Your task to perform on an android device: Go to Wikipedia Image 0: 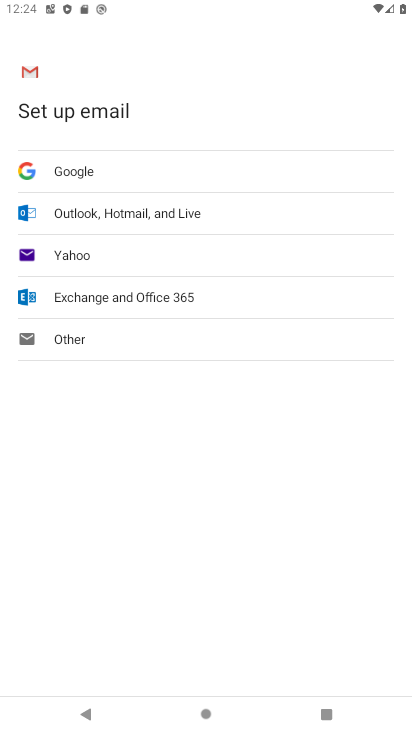
Step 0: press home button
Your task to perform on an android device: Go to Wikipedia Image 1: 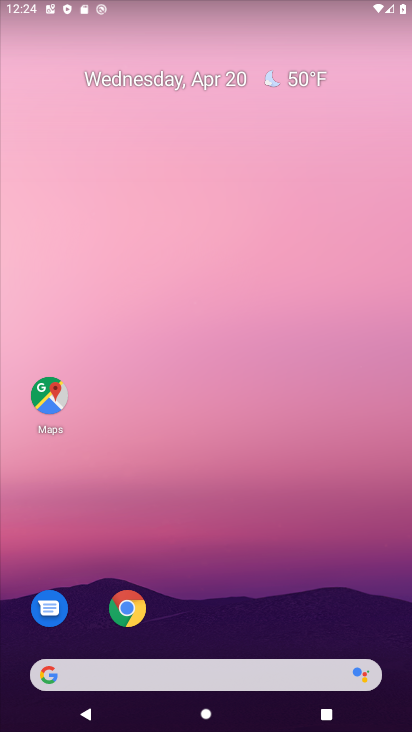
Step 1: click (160, 674)
Your task to perform on an android device: Go to Wikipedia Image 2: 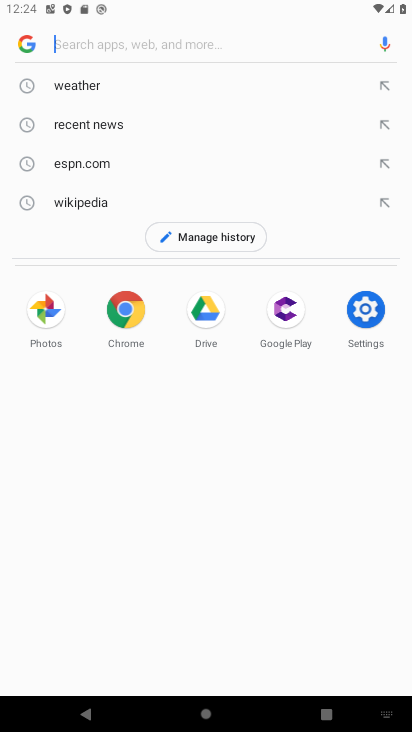
Step 2: click (122, 42)
Your task to perform on an android device: Go to Wikipedia Image 3: 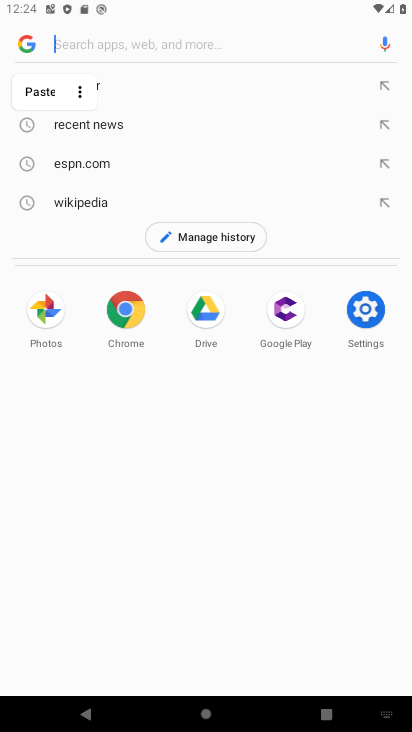
Step 3: click (70, 205)
Your task to perform on an android device: Go to Wikipedia Image 4: 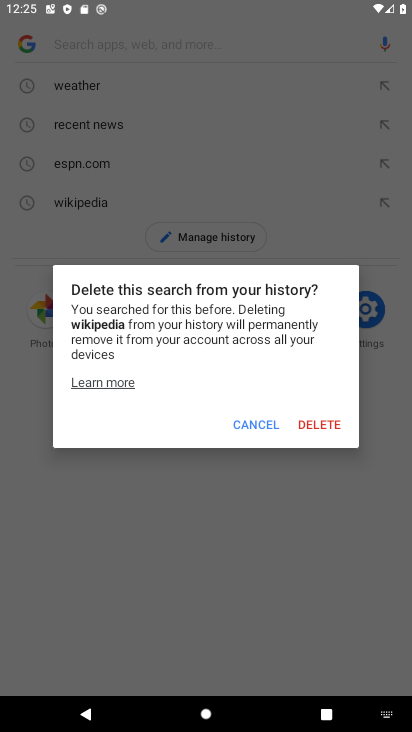
Step 4: click (249, 426)
Your task to perform on an android device: Go to Wikipedia Image 5: 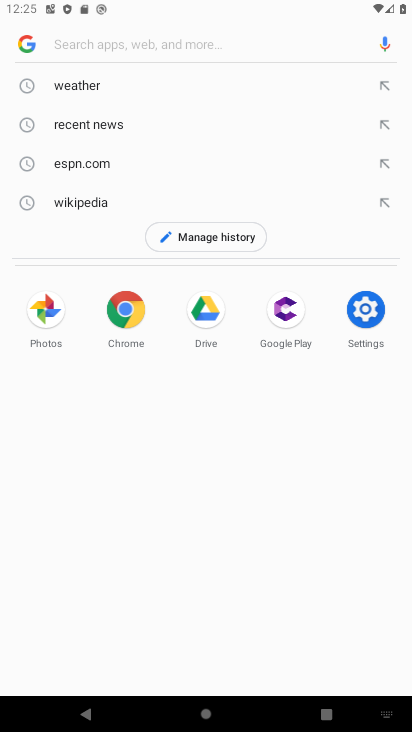
Step 5: drag from (235, 419) to (127, 196)
Your task to perform on an android device: Go to Wikipedia Image 6: 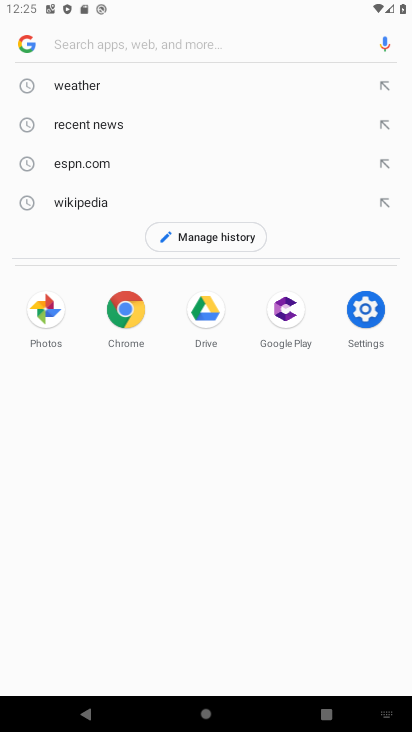
Step 6: click (107, 200)
Your task to perform on an android device: Go to Wikipedia Image 7: 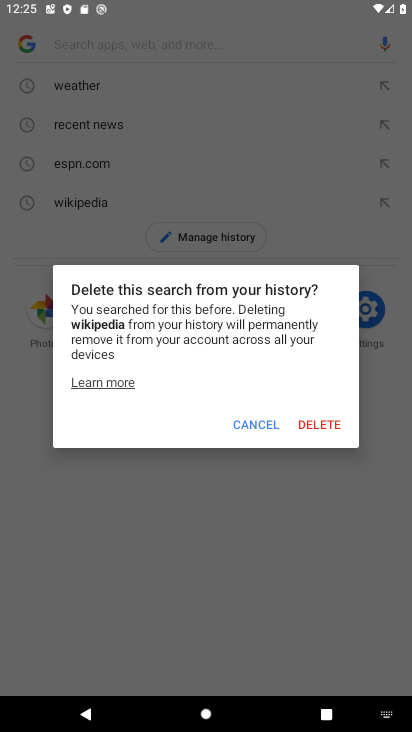
Step 7: click (106, 201)
Your task to perform on an android device: Go to Wikipedia Image 8: 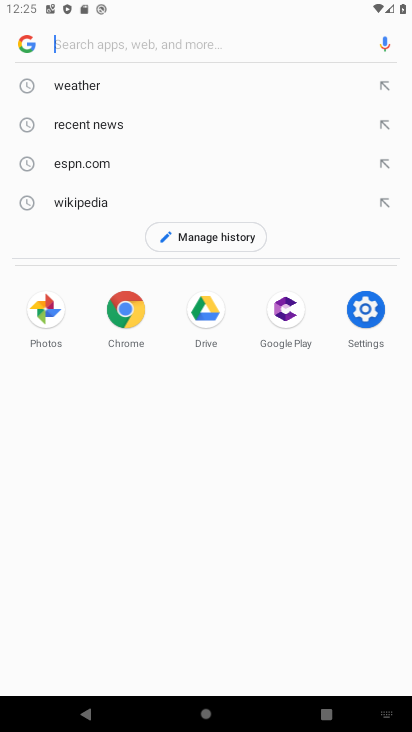
Step 8: click (381, 205)
Your task to perform on an android device: Go to Wikipedia Image 9: 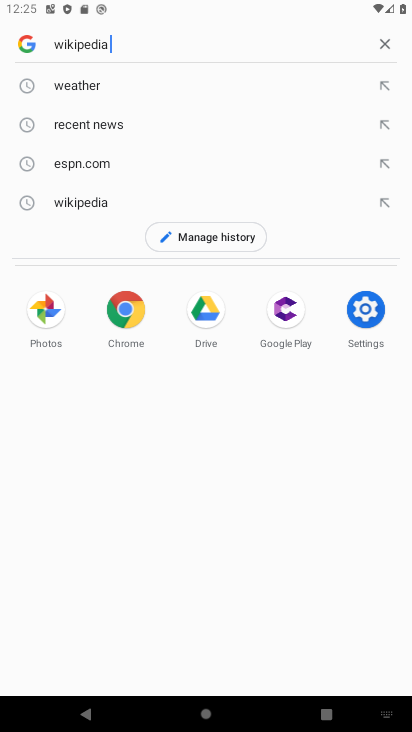
Step 9: click (381, 205)
Your task to perform on an android device: Go to Wikipedia Image 10: 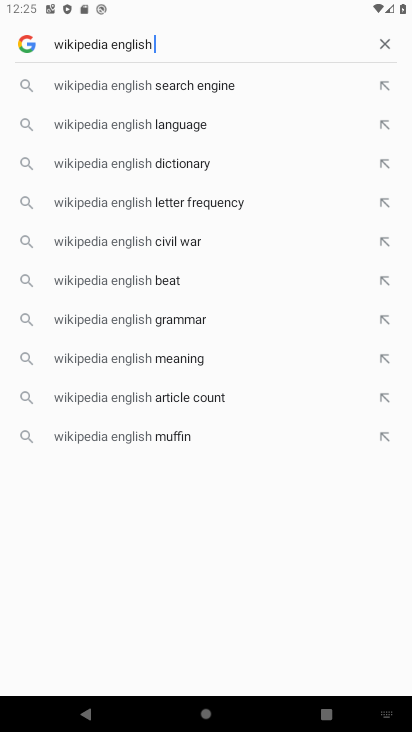
Step 10: click (388, 45)
Your task to perform on an android device: Go to Wikipedia Image 11: 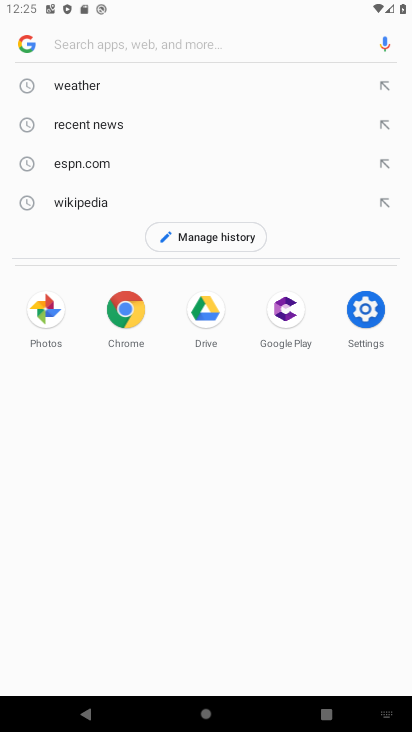
Step 11: click (382, 202)
Your task to perform on an android device: Go to Wikipedia Image 12: 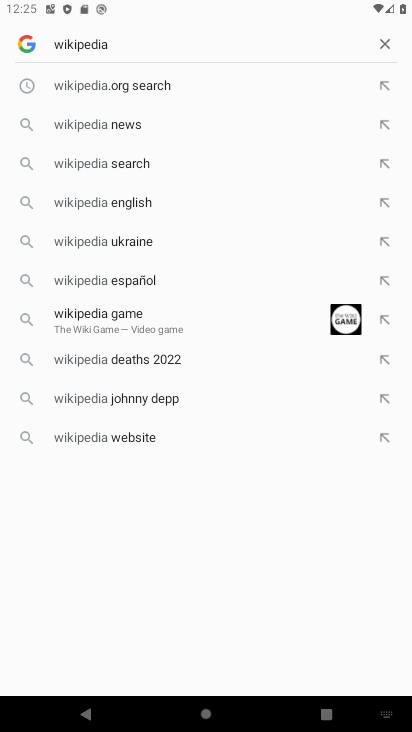
Step 12: click (70, 165)
Your task to perform on an android device: Go to Wikipedia Image 13: 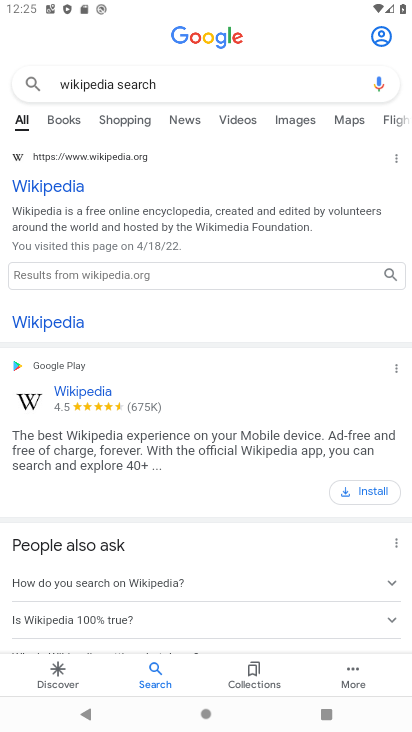
Step 13: task complete